Your task to perform on an android device: check data usage Image 0: 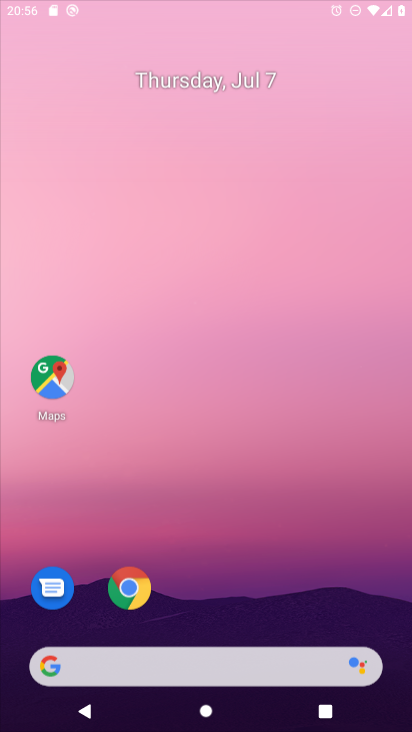
Step 0: click (229, 275)
Your task to perform on an android device: check data usage Image 1: 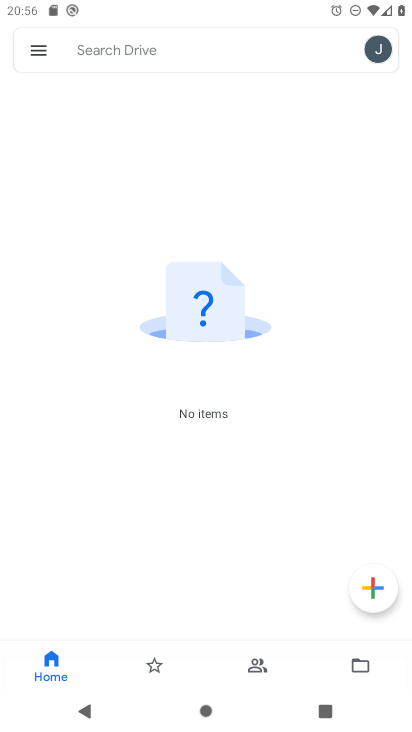
Step 1: press home button
Your task to perform on an android device: check data usage Image 2: 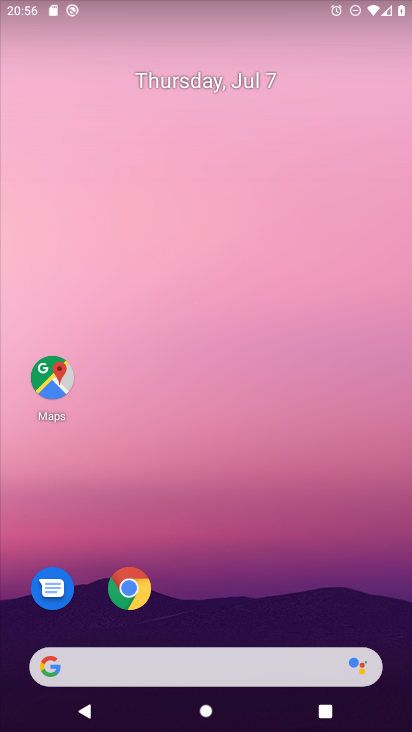
Step 2: drag from (230, 594) to (231, 246)
Your task to perform on an android device: check data usage Image 3: 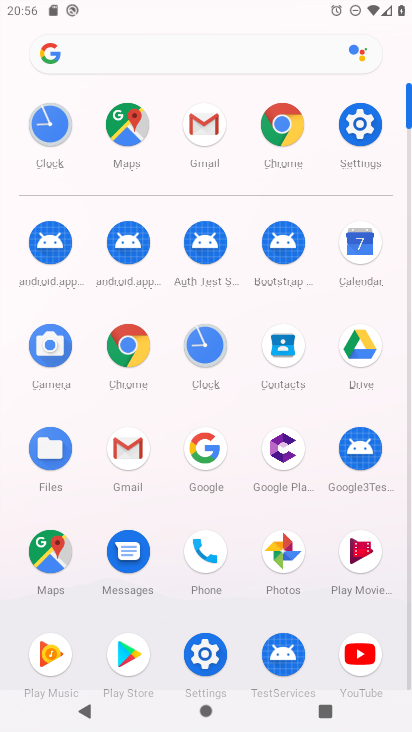
Step 3: click (349, 120)
Your task to perform on an android device: check data usage Image 4: 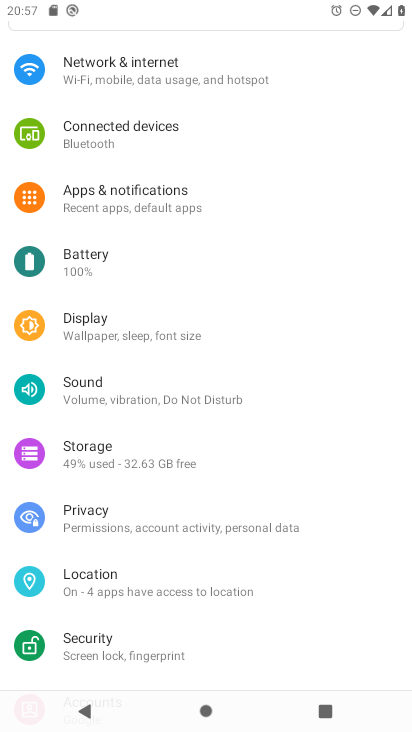
Step 4: drag from (137, 106) to (175, 451)
Your task to perform on an android device: check data usage Image 5: 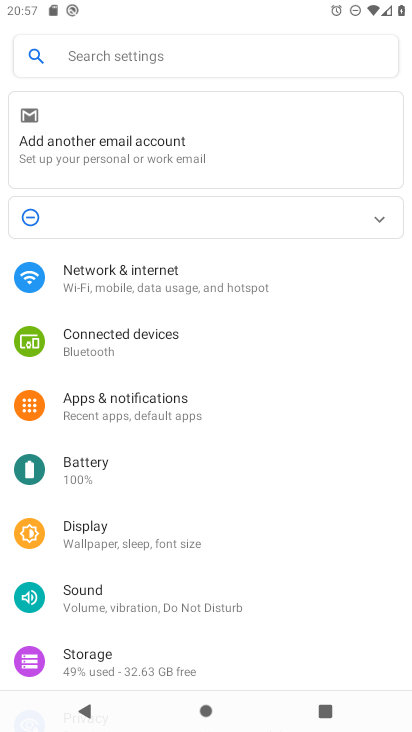
Step 5: click (166, 278)
Your task to perform on an android device: check data usage Image 6: 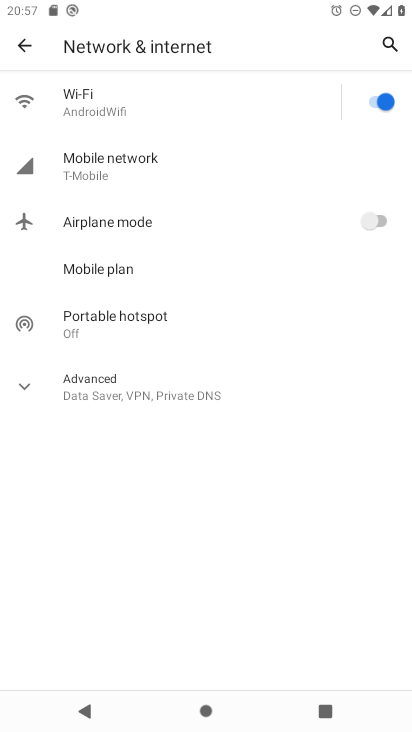
Step 6: click (128, 167)
Your task to perform on an android device: check data usage Image 7: 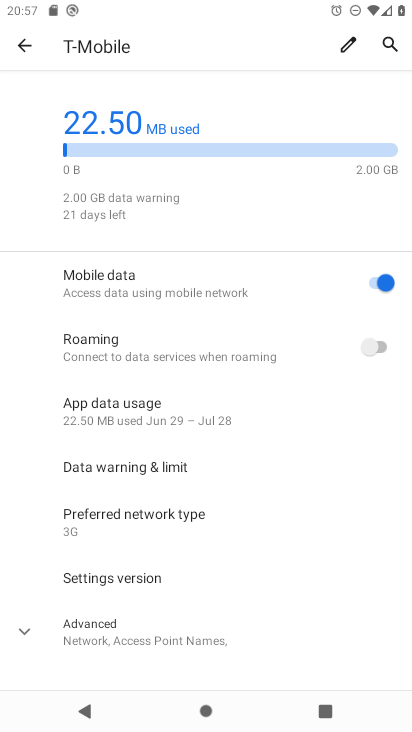
Step 7: drag from (226, 602) to (223, 211)
Your task to perform on an android device: check data usage Image 8: 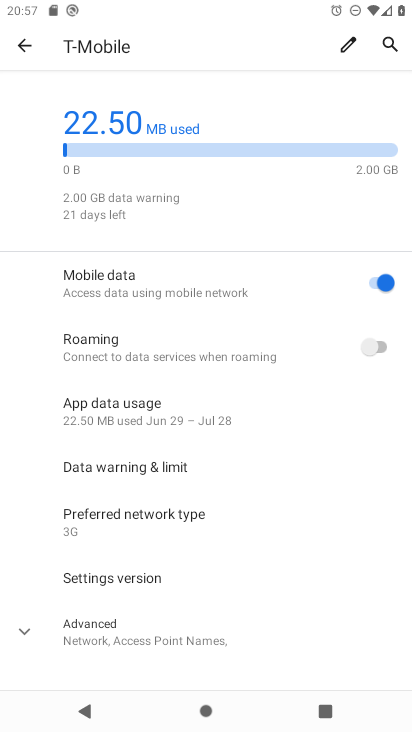
Step 8: click (179, 401)
Your task to perform on an android device: check data usage Image 9: 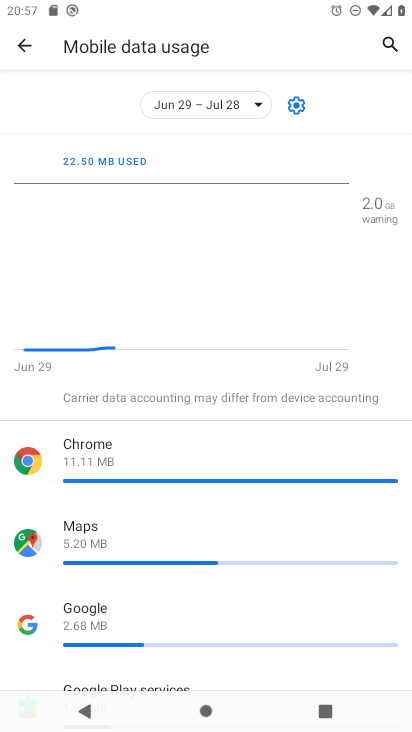
Step 9: task complete